Your task to perform on an android device: Search for vegetarian restaurants on Maps Image 0: 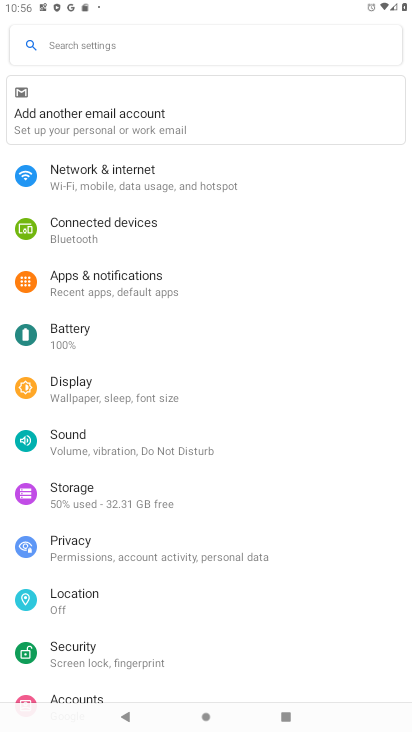
Step 0: press home button
Your task to perform on an android device: Search for vegetarian restaurants on Maps Image 1: 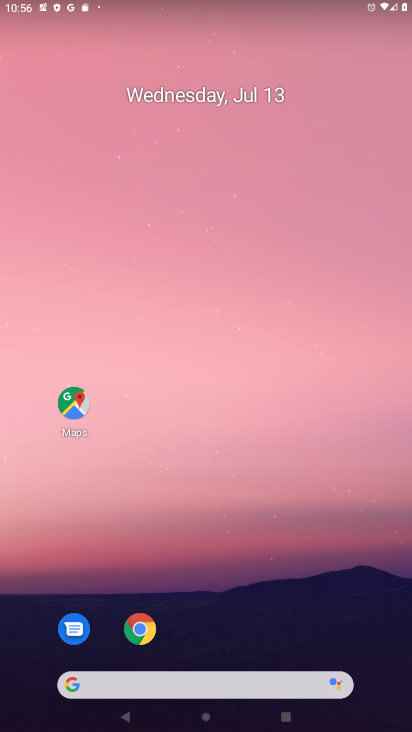
Step 1: click (75, 419)
Your task to perform on an android device: Search for vegetarian restaurants on Maps Image 2: 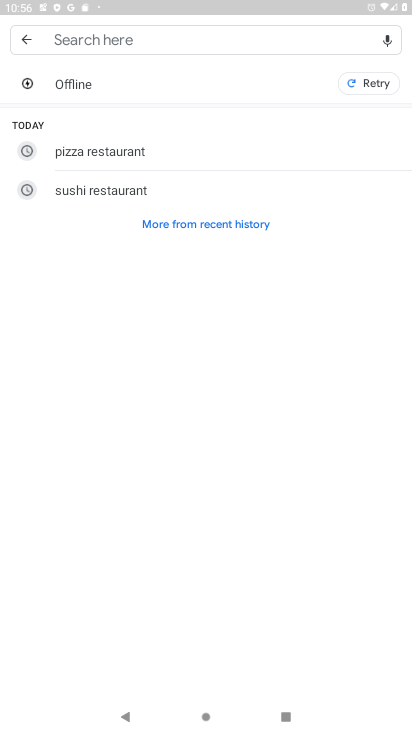
Step 2: click (159, 34)
Your task to perform on an android device: Search for vegetarian restaurants on Maps Image 3: 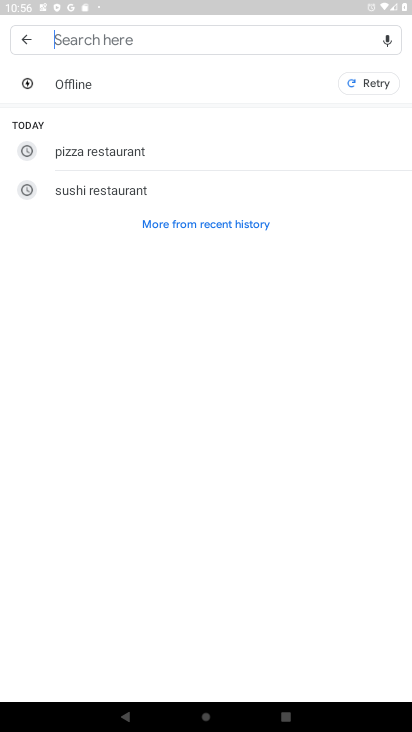
Step 3: type "vegetarian"
Your task to perform on an android device: Search for vegetarian restaurants on Maps Image 4: 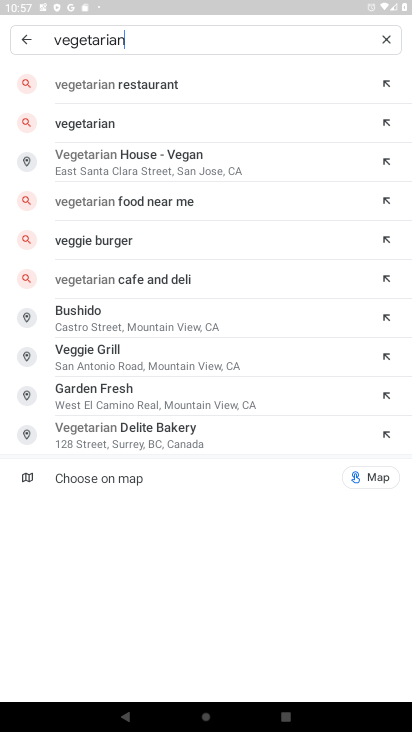
Step 4: click (154, 87)
Your task to perform on an android device: Search for vegetarian restaurants on Maps Image 5: 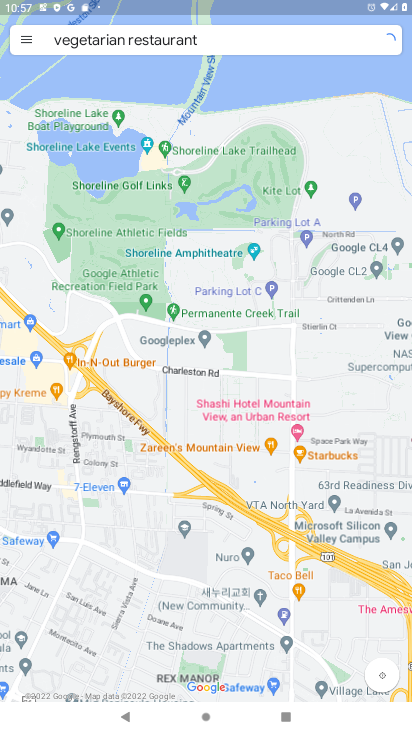
Step 5: task complete